Your task to perform on an android device: turn off priority inbox in the gmail app Image 0: 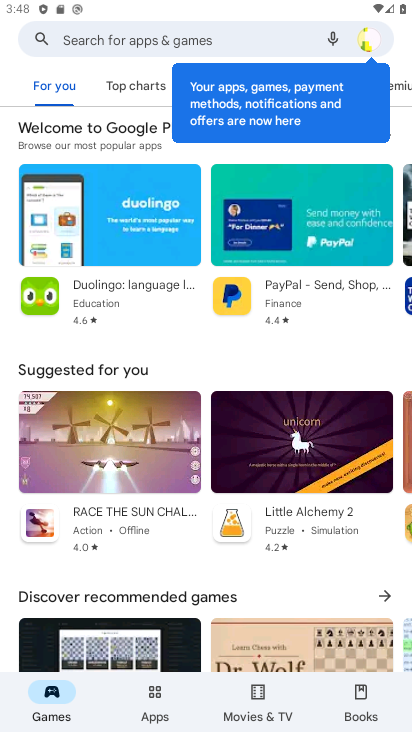
Step 0: press home button
Your task to perform on an android device: turn off priority inbox in the gmail app Image 1: 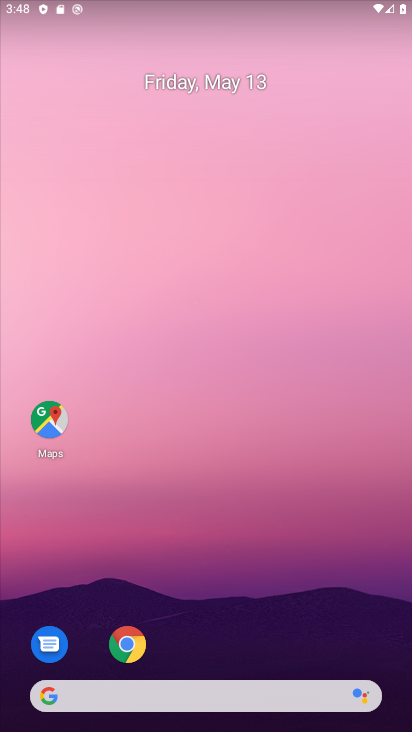
Step 1: drag from (326, 646) to (301, 158)
Your task to perform on an android device: turn off priority inbox in the gmail app Image 2: 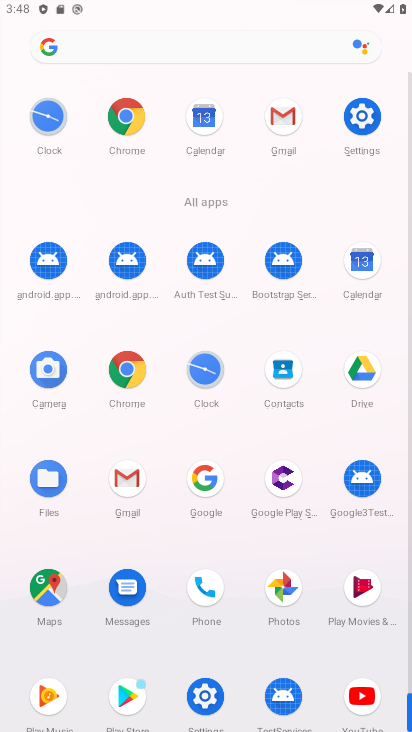
Step 2: click (285, 112)
Your task to perform on an android device: turn off priority inbox in the gmail app Image 3: 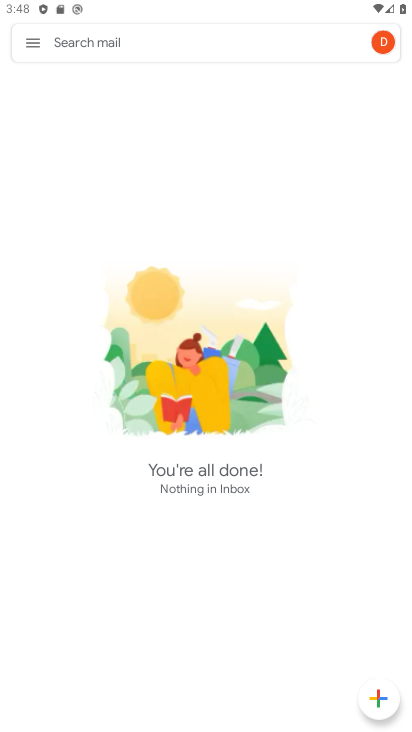
Step 3: click (29, 48)
Your task to perform on an android device: turn off priority inbox in the gmail app Image 4: 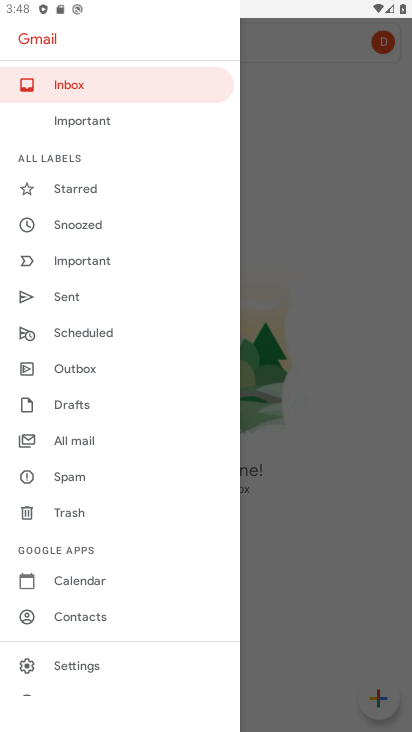
Step 4: click (77, 655)
Your task to perform on an android device: turn off priority inbox in the gmail app Image 5: 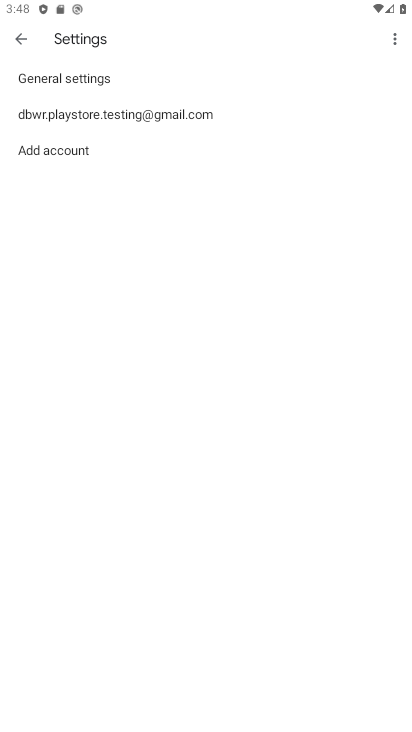
Step 5: click (109, 117)
Your task to perform on an android device: turn off priority inbox in the gmail app Image 6: 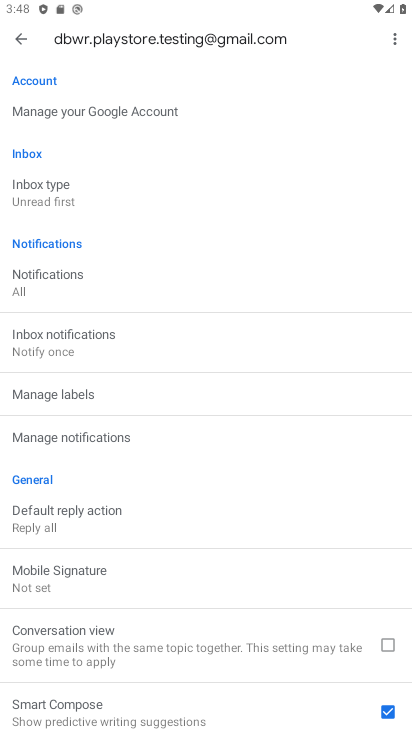
Step 6: click (69, 197)
Your task to perform on an android device: turn off priority inbox in the gmail app Image 7: 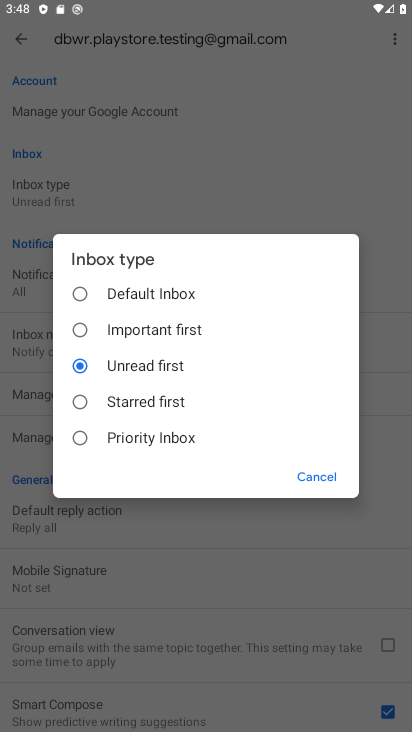
Step 7: task complete